Your task to perform on an android device: Open Reddit.com Image 0: 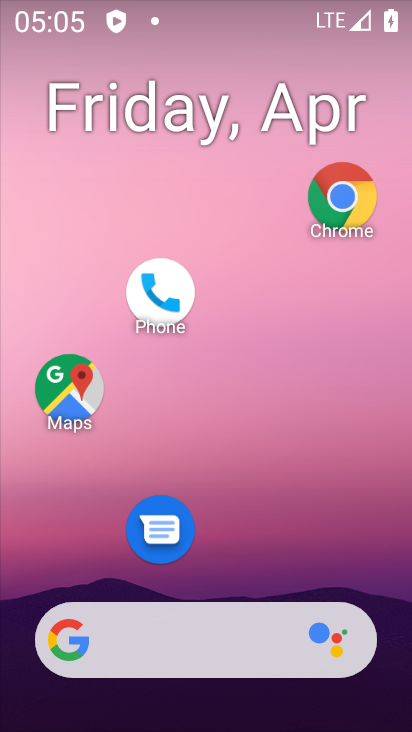
Step 0: drag from (225, 544) to (277, 60)
Your task to perform on an android device: Open Reddit.com Image 1: 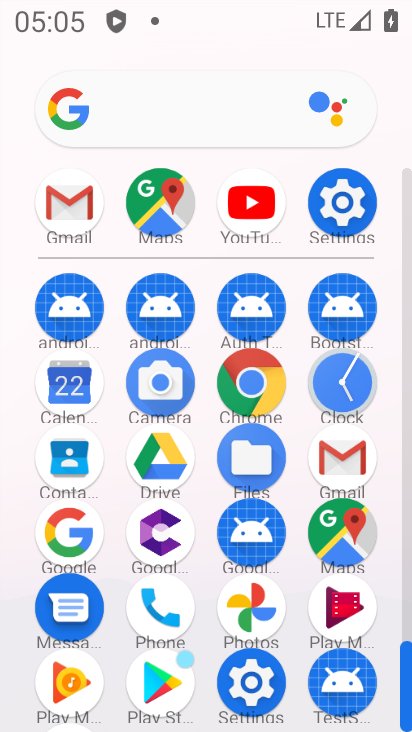
Step 1: click (250, 376)
Your task to perform on an android device: Open Reddit.com Image 2: 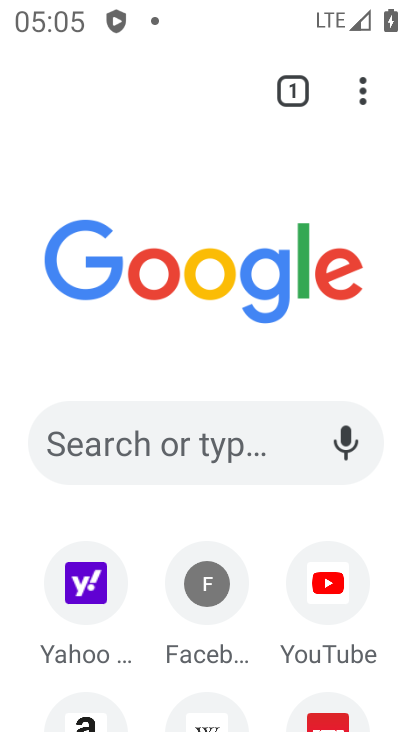
Step 2: drag from (263, 658) to (293, 194)
Your task to perform on an android device: Open Reddit.com Image 3: 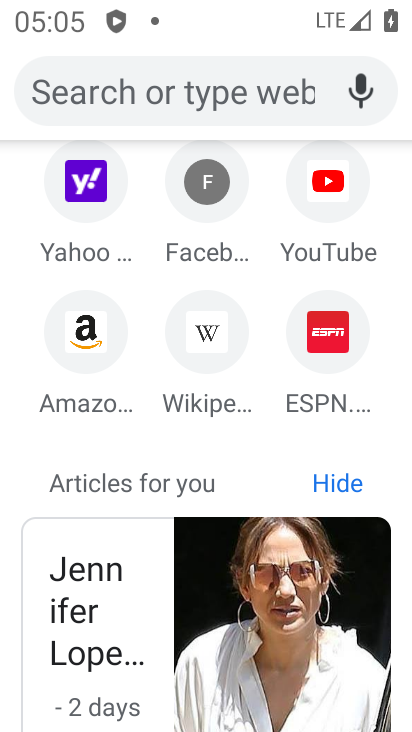
Step 3: drag from (265, 187) to (260, 484)
Your task to perform on an android device: Open Reddit.com Image 4: 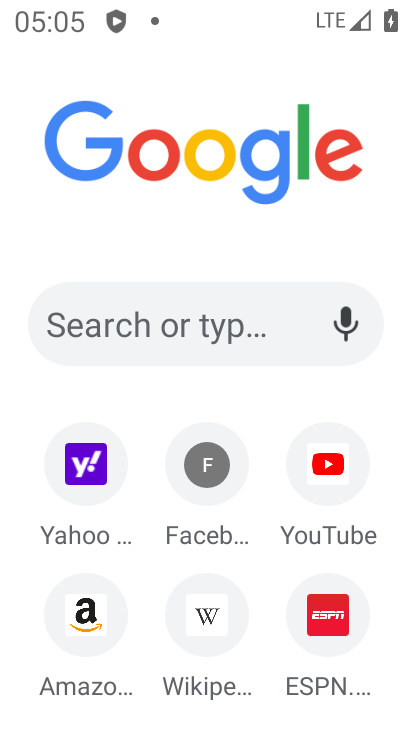
Step 4: click (135, 320)
Your task to perform on an android device: Open Reddit.com Image 5: 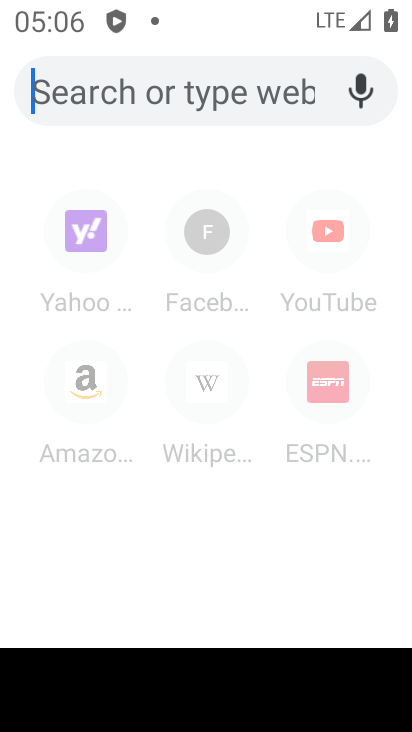
Step 5: type "reddit"
Your task to perform on an android device: Open Reddit.com Image 6: 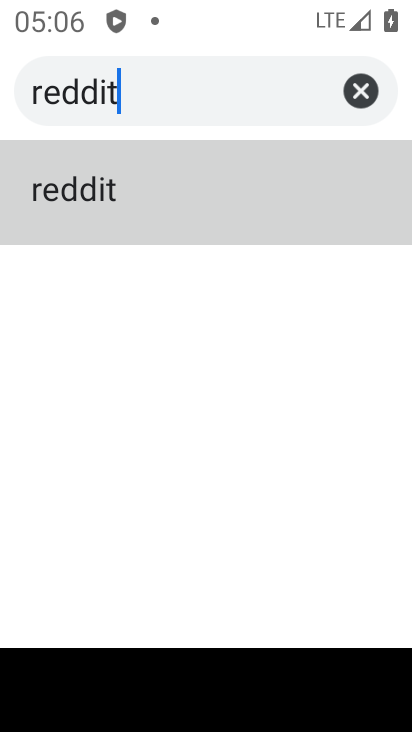
Step 6: type ""
Your task to perform on an android device: Open Reddit.com Image 7: 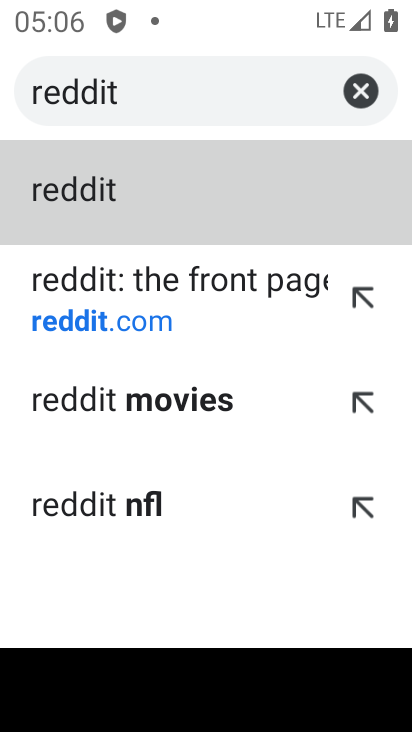
Step 7: click (190, 310)
Your task to perform on an android device: Open Reddit.com Image 8: 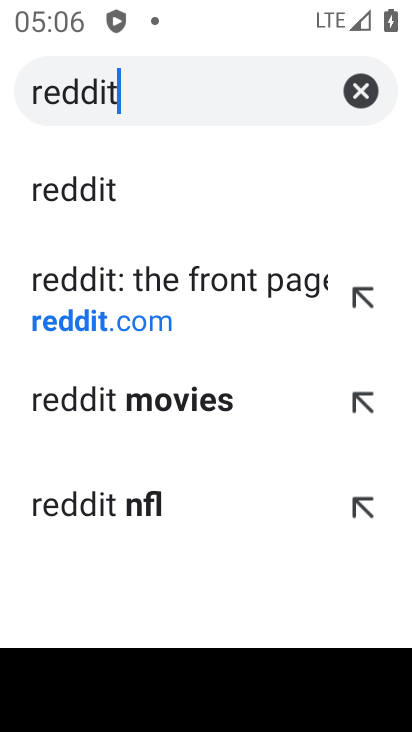
Step 8: click (177, 307)
Your task to perform on an android device: Open Reddit.com Image 9: 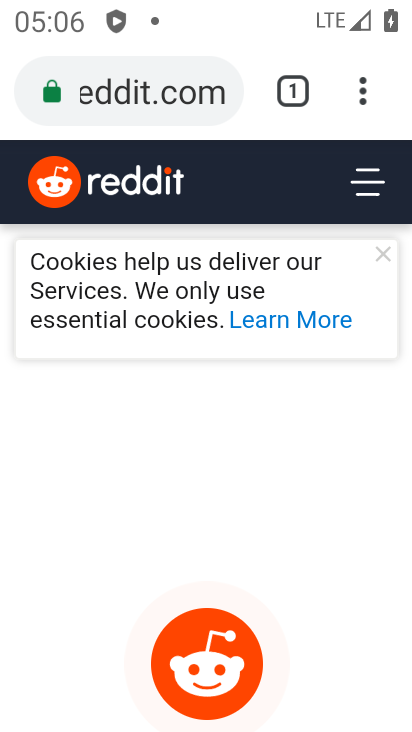
Step 9: click (381, 251)
Your task to perform on an android device: Open Reddit.com Image 10: 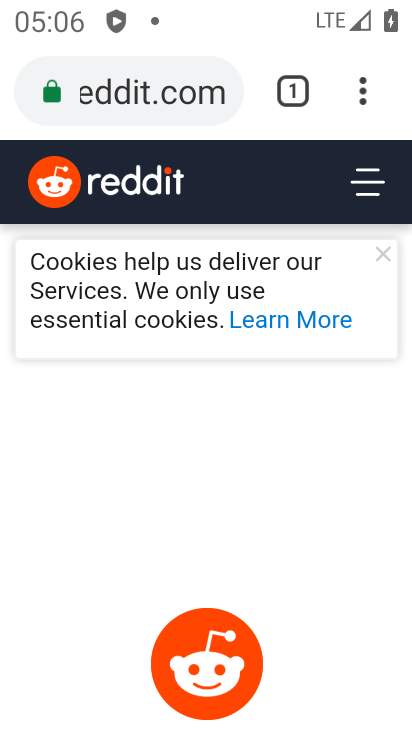
Step 10: click (380, 255)
Your task to perform on an android device: Open Reddit.com Image 11: 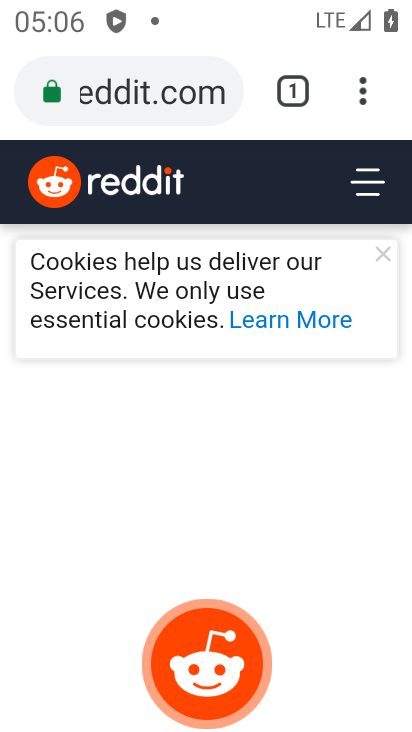
Step 11: task complete